Your task to perform on an android device: What's the weather going to be tomorrow? Image 0: 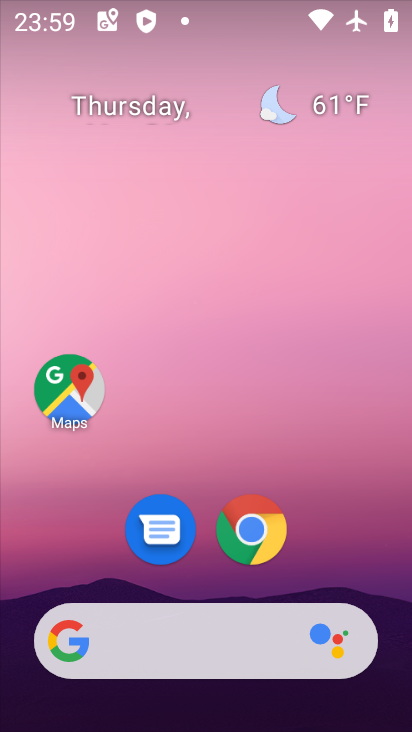
Step 0: drag from (377, 555) to (301, 147)
Your task to perform on an android device: What's the weather going to be tomorrow? Image 1: 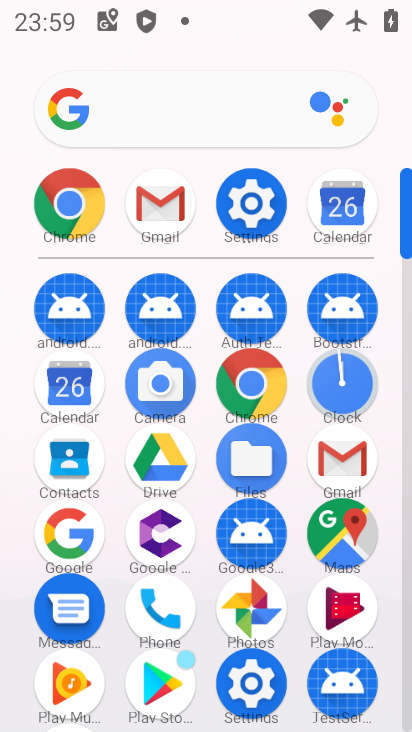
Step 1: click (213, 101)
Your task to perform on an android device: What's the weather going to be tomorrow? Image 2: 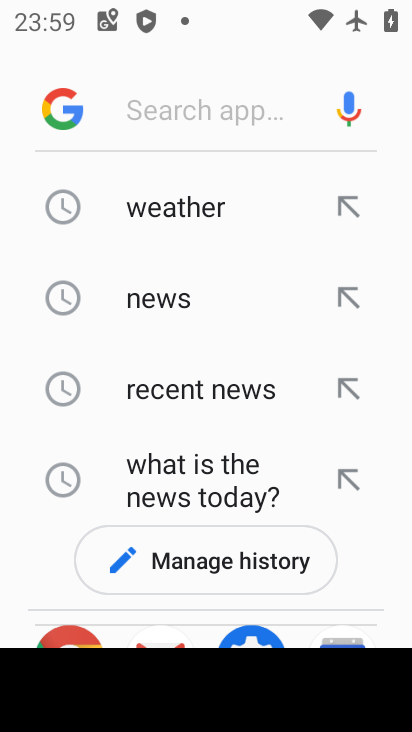
Step 2: click (183, 230)
Your task to perform on an android device: What's the weather going to be tomorrow? Image 3: 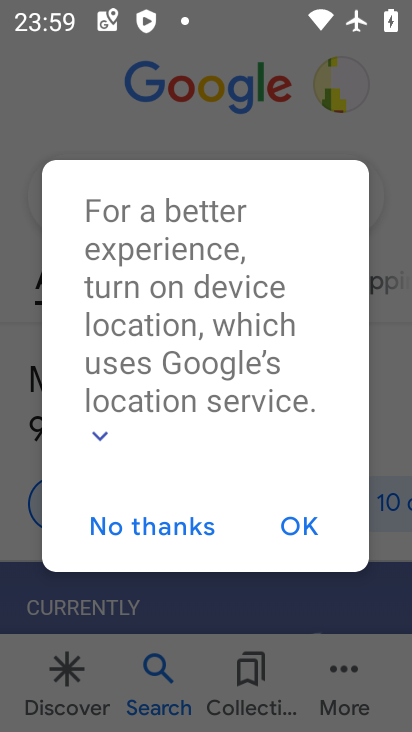
Step 3: task complete